Your task to perform on an android device: Go to Android settings Image 0: 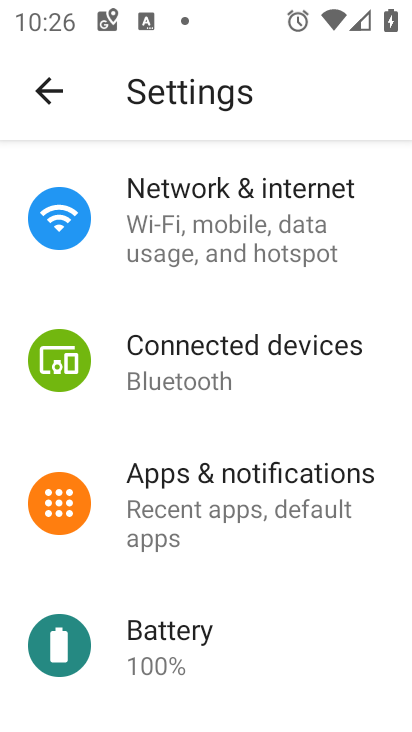
Step 0: press home button
Your task to perform on an android device: Go to Android settings Image 1: 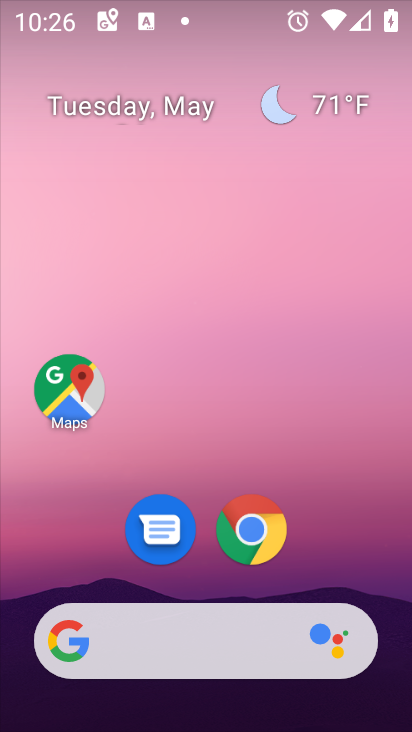
Step 1: drag from (296, 701) to (289, 417)
Your task to perform on an android device: Go to Android settings Image 2: 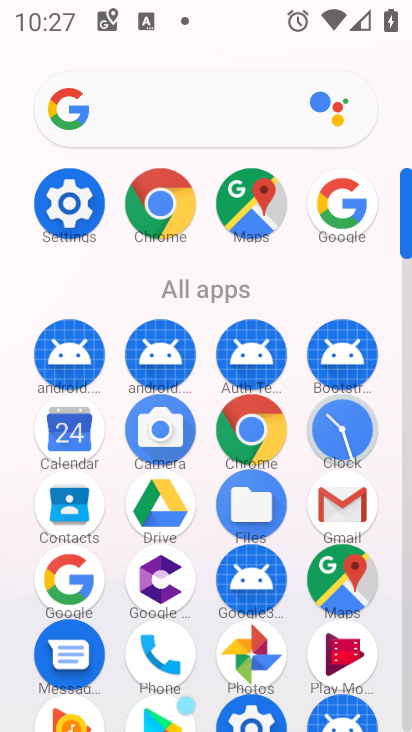
Step 2: click (80, 212)
Your task to perform on an android device: Go to Android settings Image 3: 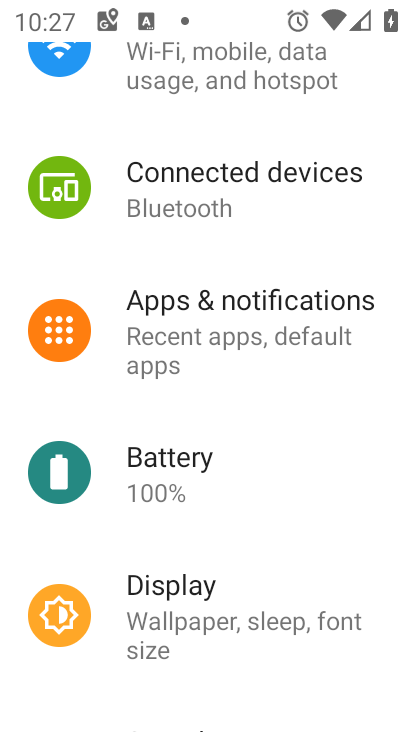
Step 3: drag from (159, 479) to (149, 307)
Your task to perform on an android device: Go to Android settings Image 4: 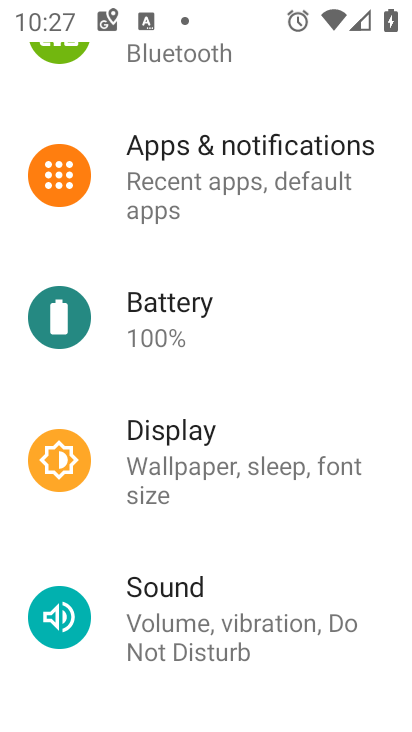
Step 4: drag from (134, 504) to (142, 361)
Your task to perform on an android device: Go to Android settings Image 5: 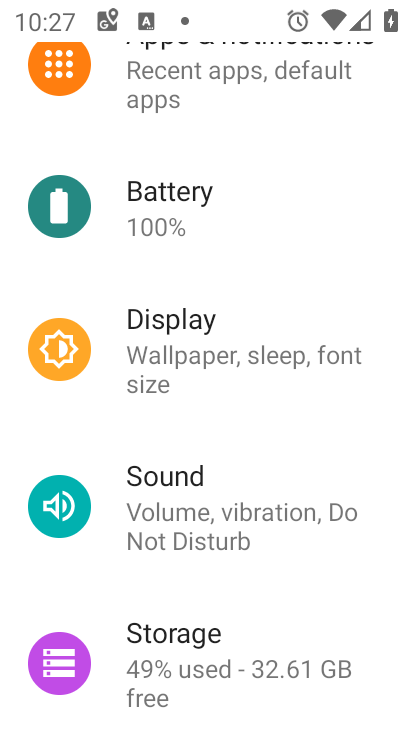
Step 5: drag from (142, 513) to (164, 320)
Your task to perform on an android device: Go to Android settings Image 6: 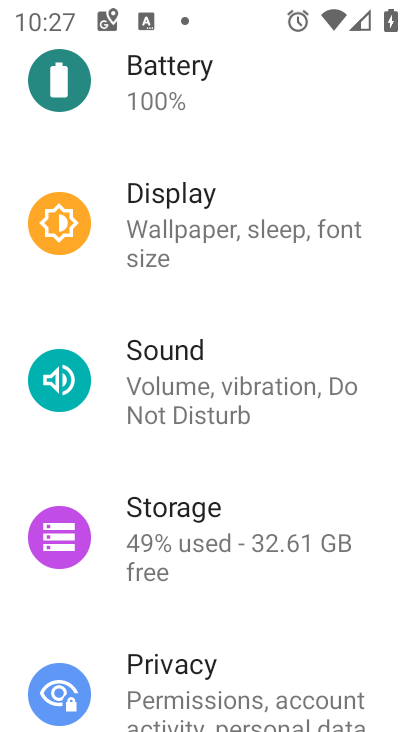
Step 6: drag from (160, 468) to (179, 268)
Your task to perform on an android device: Go to Android settings Image 7: 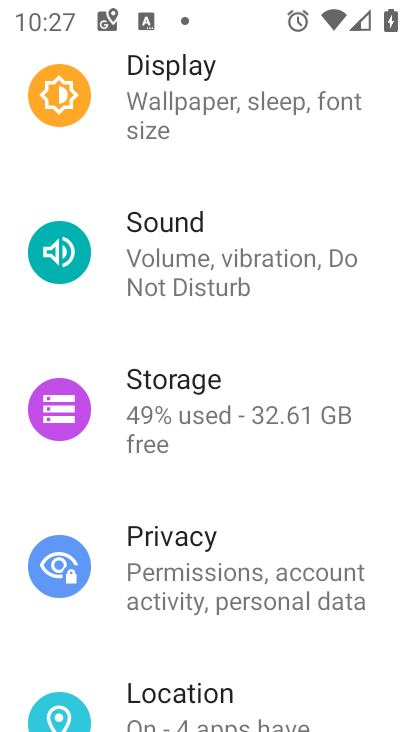
Step 7: drag from (172, 456) to (199, 215)
Your task to perform on an android device: Go to Android settings Image 8: 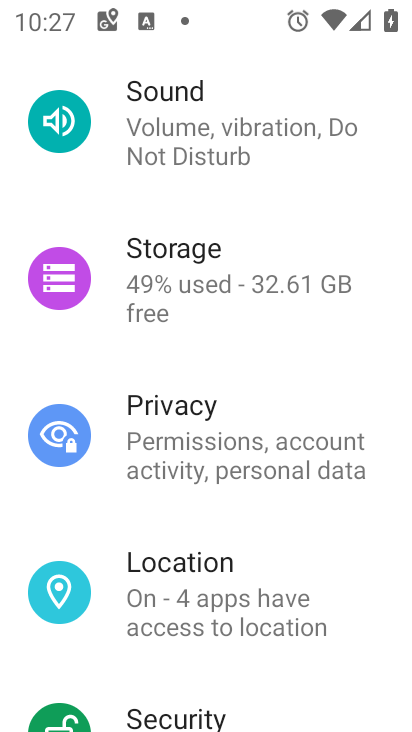
Step 8: drag from (179, 473) to (183, 303)
Your task to perform on an android device: Go to Android settings Image 9: 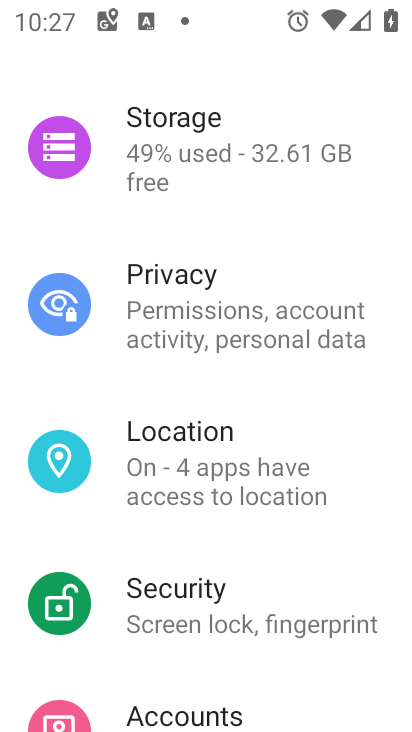
Step 9: drag from (172, 478) to (184, 348)
Your task to perform on an android device: Go to Android settings Image 10: 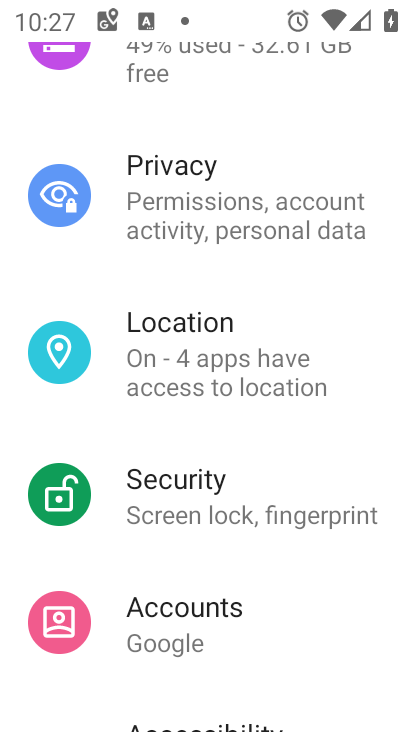
Step 10: drag from (196, 491) to (193, 407)
Your task to perform on an android device: Go to Android settings Image 11: 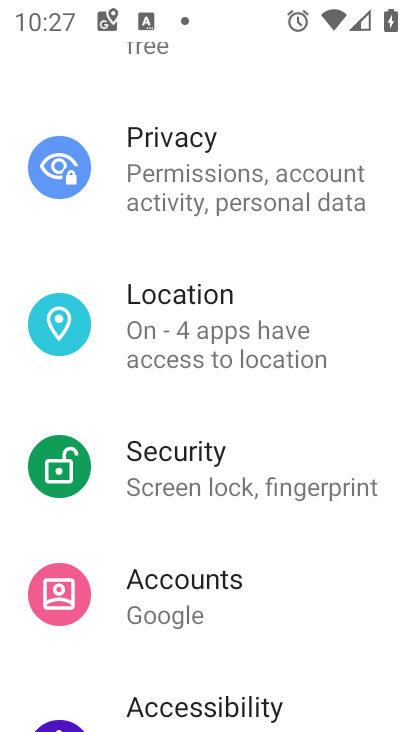
Step 11: drag from (181, 577) to (190, 305)
Your task to perform on an android device: Go to Android settings Image 12: 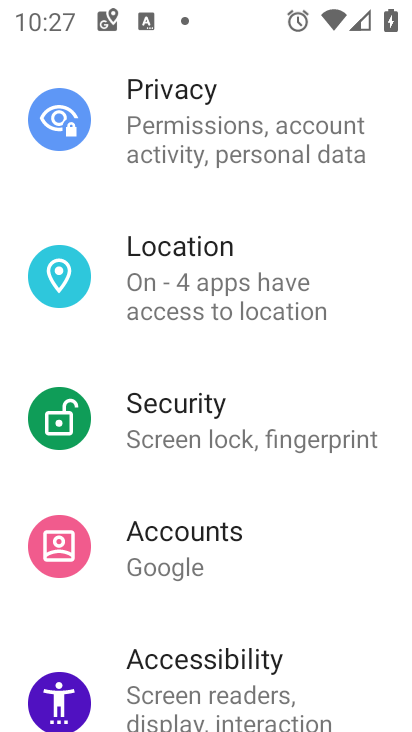
Step 12: drag from (192, 584) to (211, 352)
Your task to perform on an android device: Go to Android settings Image 13: 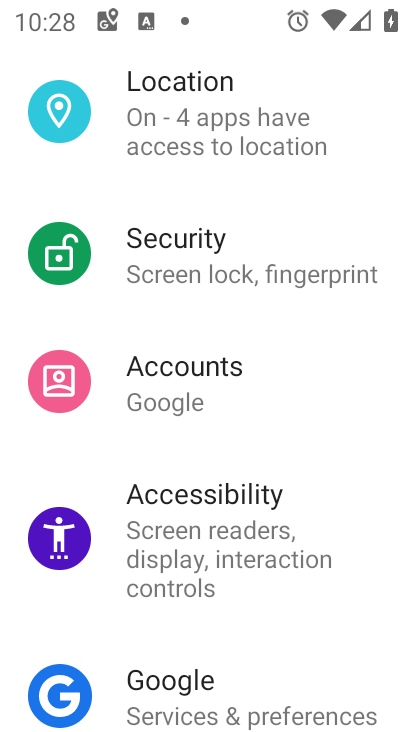
Step 13: drag from (197, 632) to (214, 414)
Your task to perform on an android device: Go to Android settings Image 14: 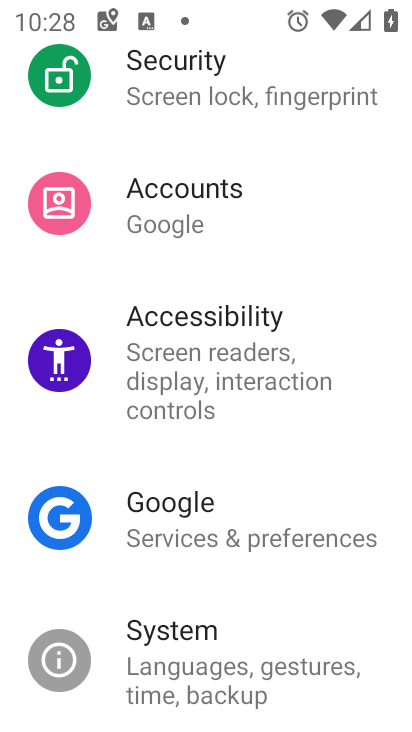
Step 14: drag from (222, 641) to (242, 433)
Your task to perform on an android device: Go to Android settings Image 15: 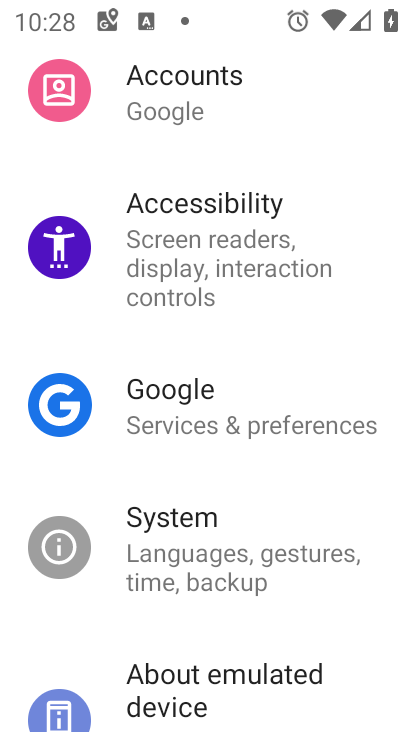
Step 15: drag from (225, 719) to (245, 525)
Your task to perform on an android device: Go to Android settings Image 16: 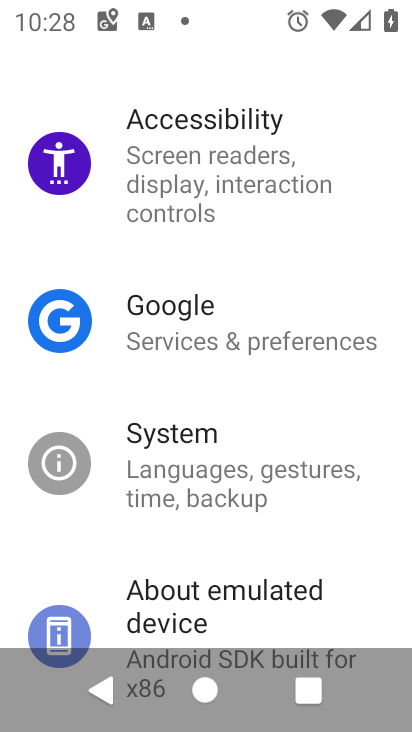
Step 16: click (236, 608)
Your task to perform on an android device: Go to Android settings Image 17: 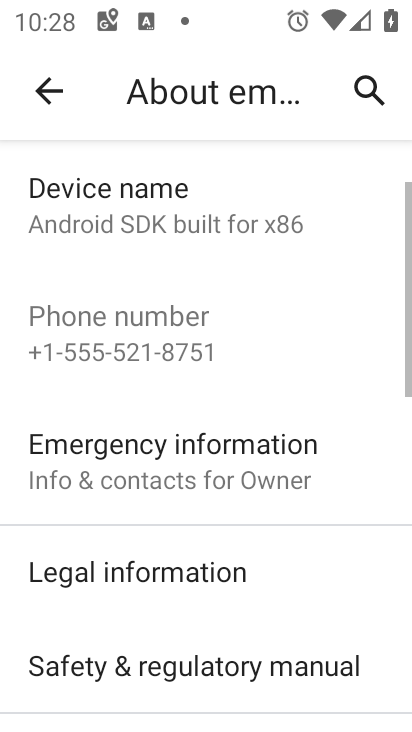
Step 17: drag from (236, 608) to (274, 396)
Your task to perform on an android device: Go to Android settings Image 18: 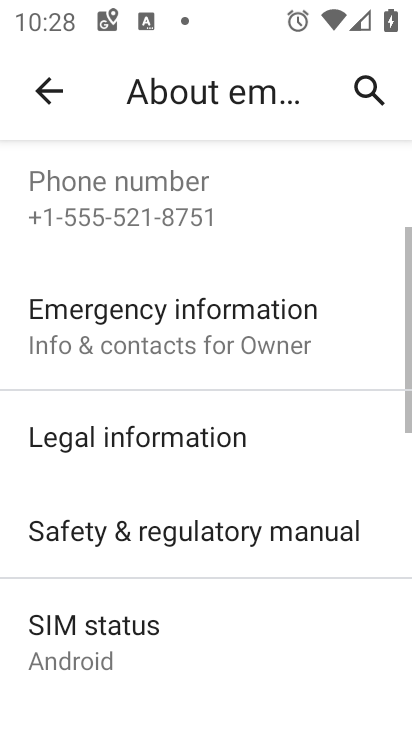
Step 18: drag from (259, 581) to (275, 460)
Your task to perform on an android device: Go to Android settings Image 19: 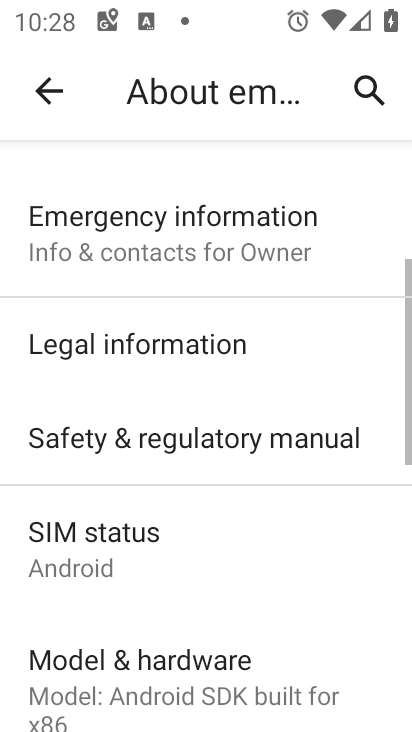
Step 19: drag from (244, 631) to (262, 488)
Your task to perform on an android device: Go to Android settings Image 20: 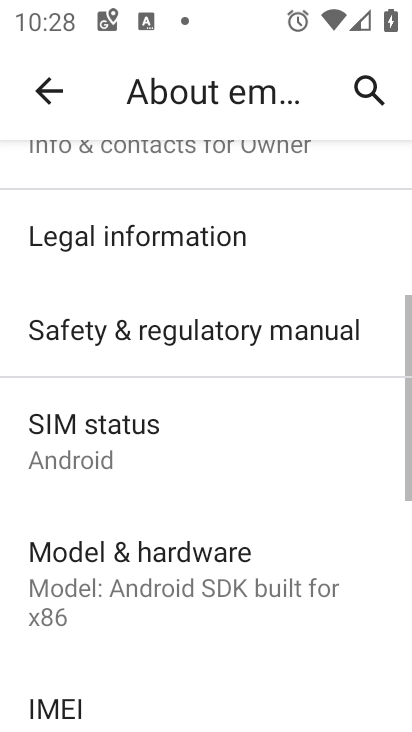
Step 20: drag from (253, 613) to (263, 555)
Your task to perform on an android device: Go to Android settings Image 21: 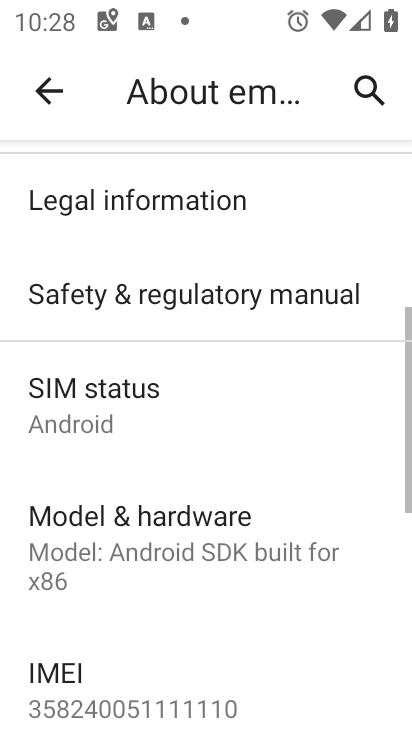
Step 21: drag from (242, 655) to (264, 462)
Your task to perform on an android device: Go to Android settings Image 22: 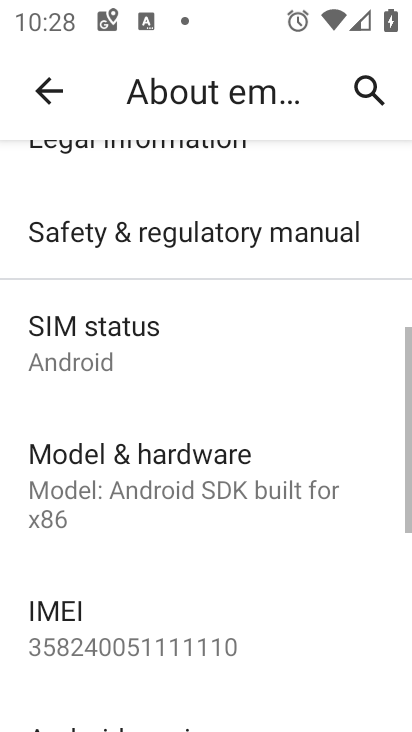
Step 22: drag from (250, 628) to (270, 396)
Your task to perform on an android device: Go to Android settings Image 23: 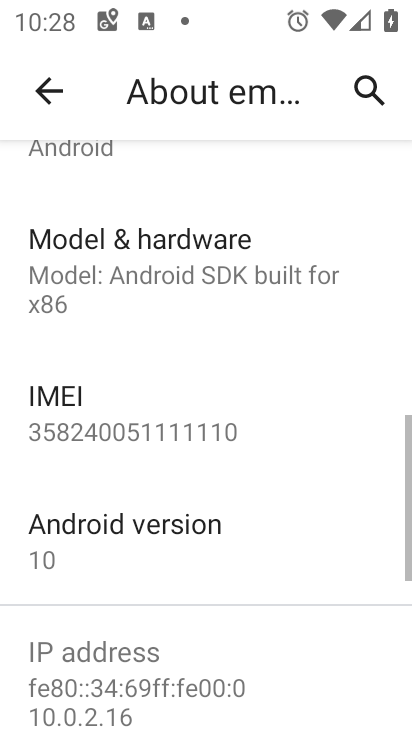
Step 23: click (251, 531)
Your task to perform on an android device: Go to Android settings Image 24: 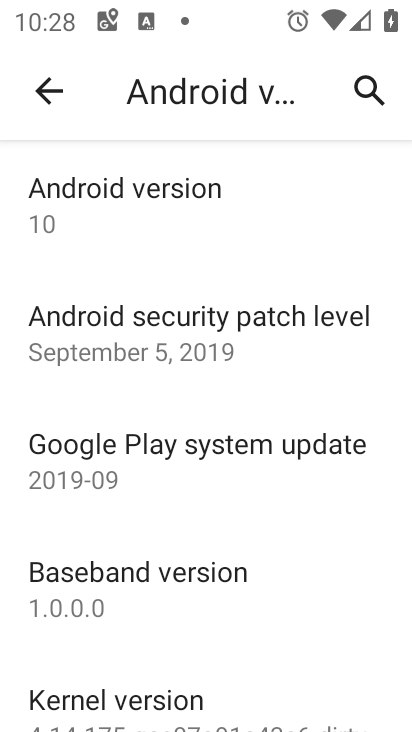
Step 24: drag from (251, 531) to (254, 475)
Your task to perform on an android device: Go to Android settings Image 25: 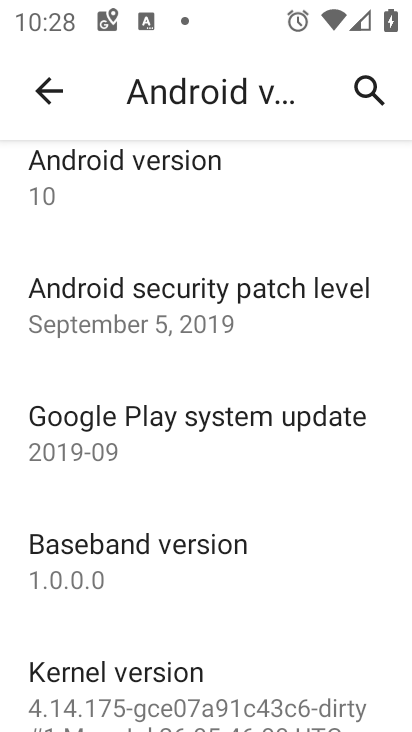
Step 25: click (335, 190)
Your task to perform on an android device: Go to Android settings Image 26: 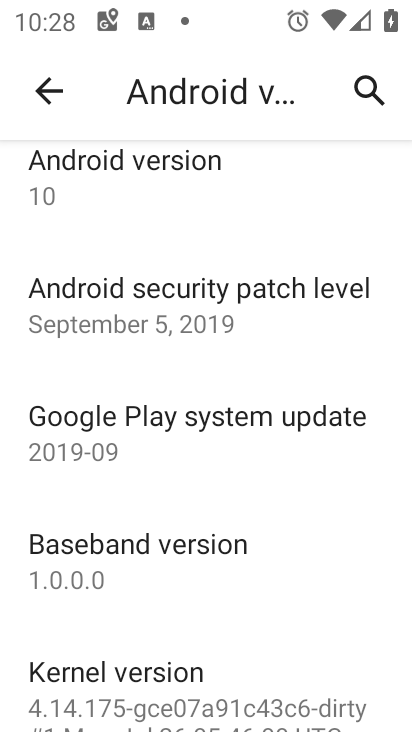
Step 26: task complete